Your task to perform on an android device: change the upload size in google photos Image 0: 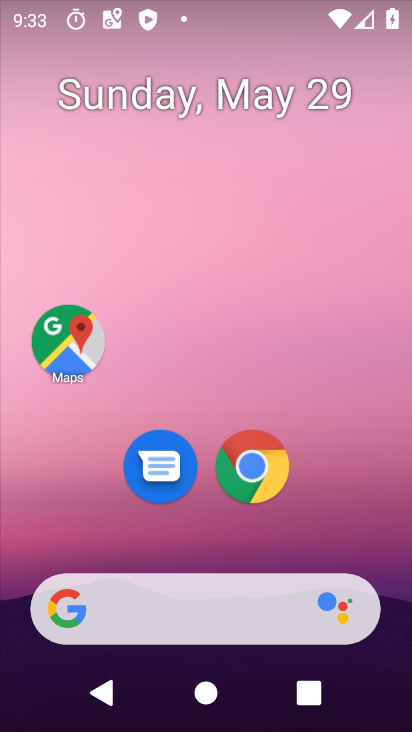
Step 0: drag from (207, 557) to (212, 236)
Your task to perform on an android device: change the upload size in google photos Image 1: 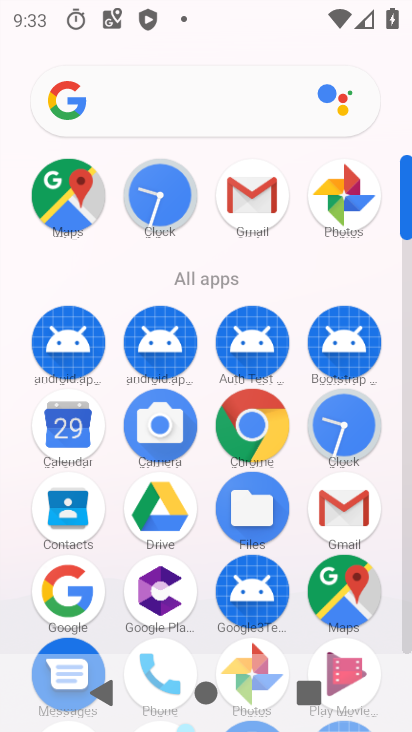
Step 1: click (331, 193)
Your task to perform on an android device: change the upload size in google photos Image 2: 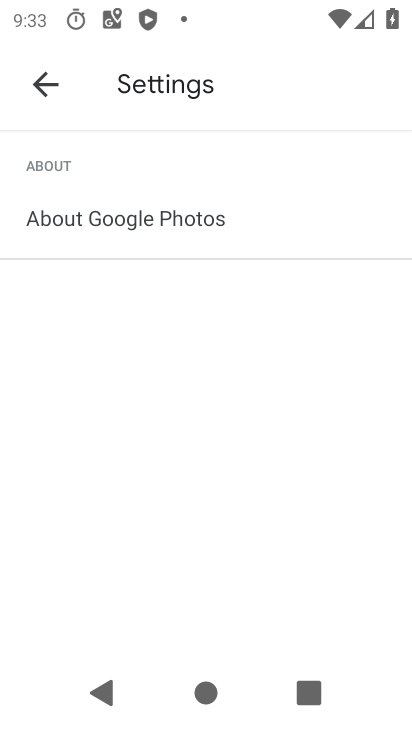
Step 2: click (50, 83)
Your task to perform on an android device: change the upload size in google photos Image 3: 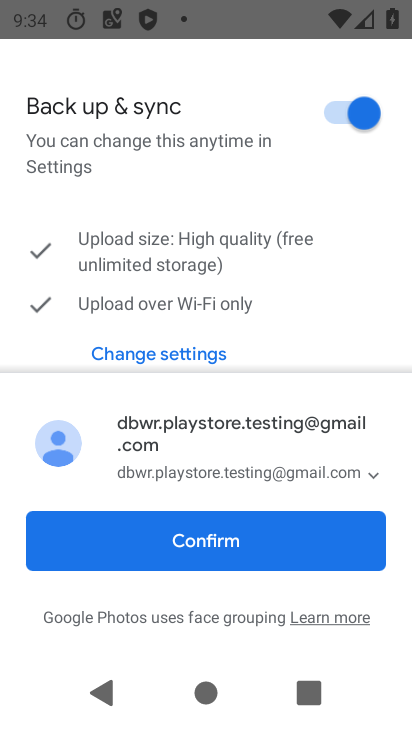
Step 3: click (215, 533)
Your task to perform on an android device: change the upload size in google photos Image 4: 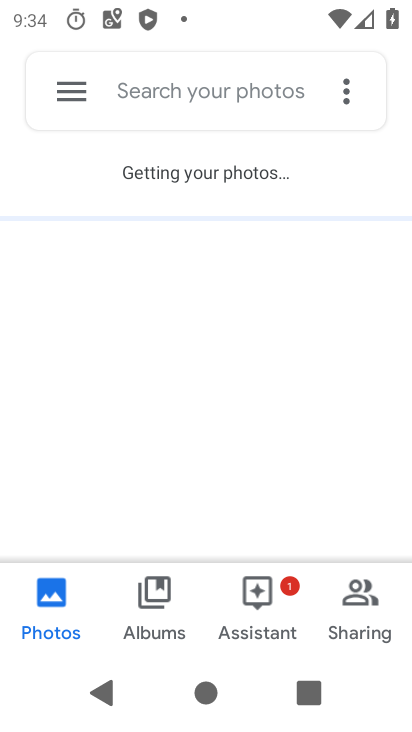
Step 4: click (59, 85)
Your task to perform on an android device: change the upload size in google photos Image 5: 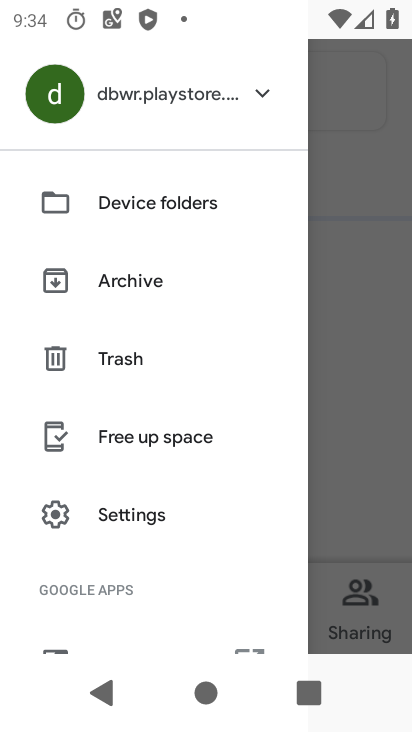
Step 5: drag from (181, 520) to (151, 257)
Your task to perform on an android device: change the upload size in google photos Image 6: 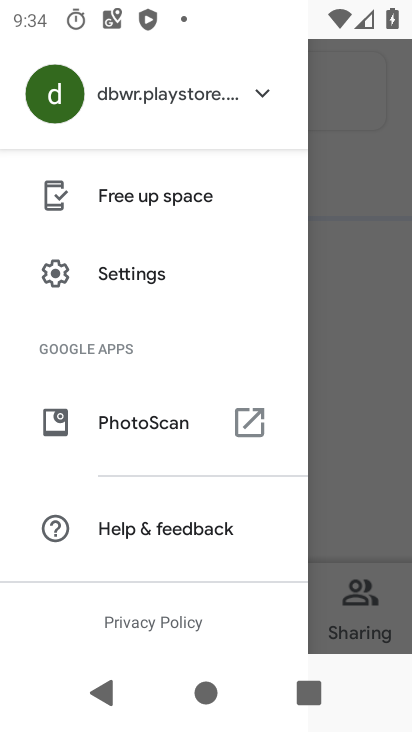
Step 6: click (150, 281)
Your task to perform on an android device: change the upload size in google photos Image 7: 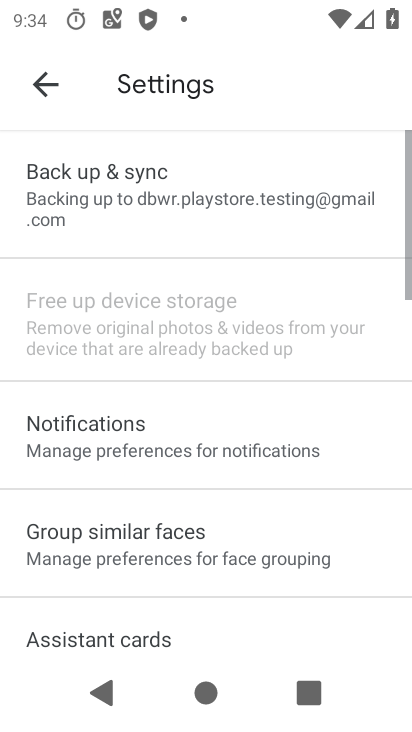
Step 7: click (149, 232)
Your task to perform on an android device: change the upload size in google photos Image 8: 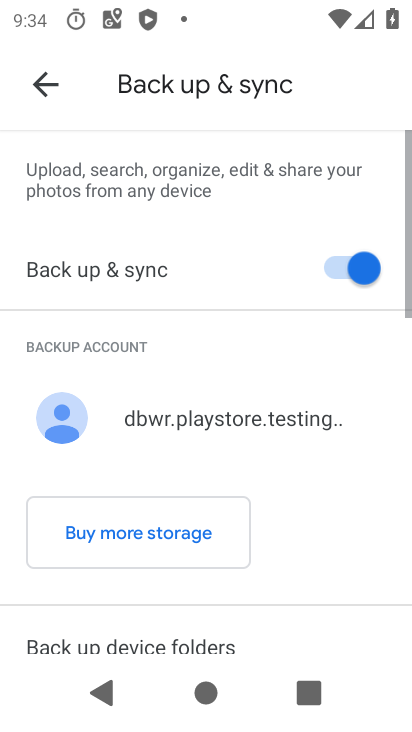
Step 8: drag from (169, 533) to (169, 181)
Your task to perform on an android device: change the upload size in google photos Image 9: 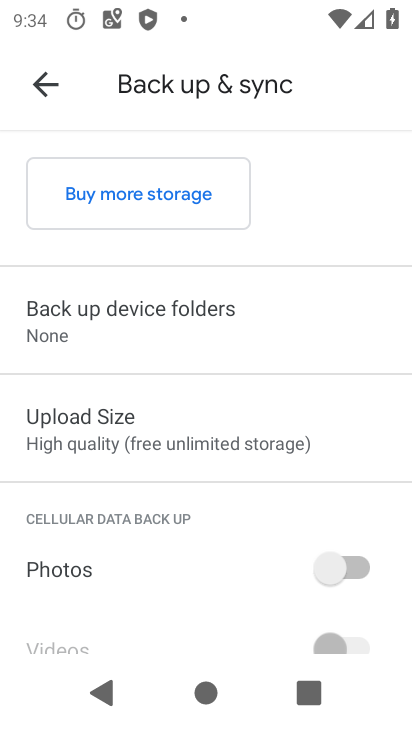
Step 9: drag from (176, 497) to (186, 276)
Your task to perform on an android device: change the upload size in google photos Image 10: 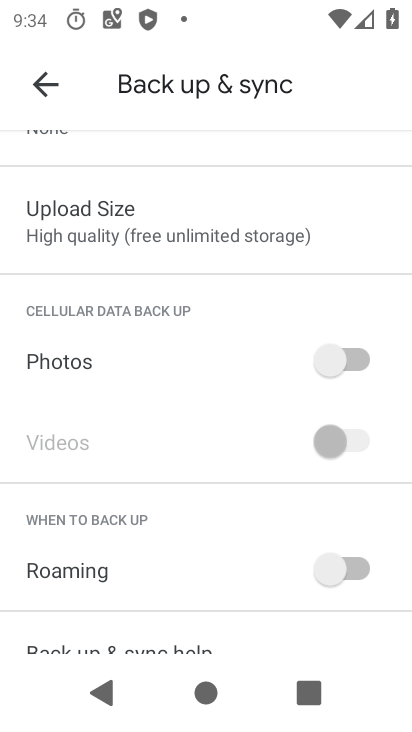
Step 10: click (174, 233)
Your task to perform on an android device: change the upload size in google photos Image 11: 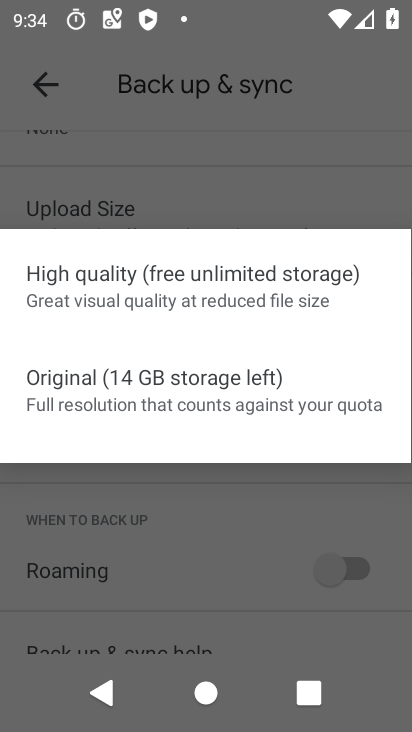
Step 11: click (161, 386)
Your task to perform on an android device: change the upload size in google photos Image 12: 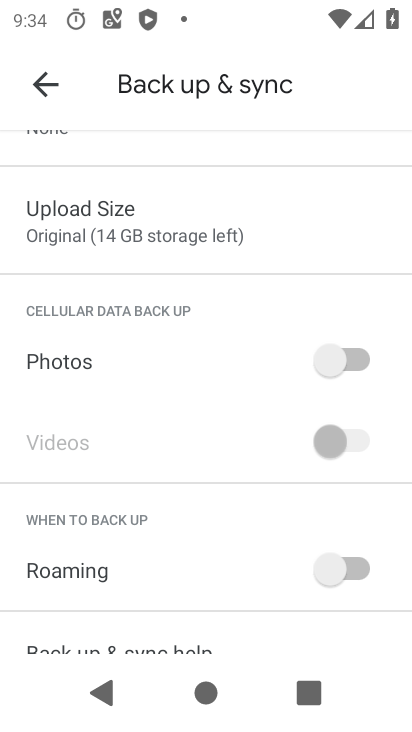
Step 12: task complete